Your task to perform on an android device: turn off sleep mode Image 0: 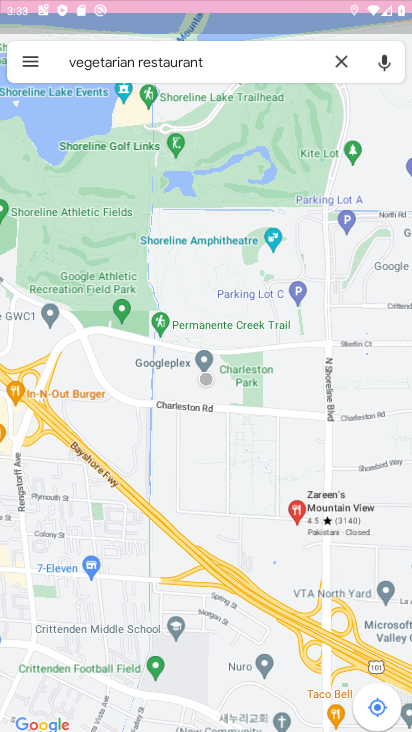
Step 0: drag from (235, 660) to (116, 67)
Your task to perform on an android device: turn off sleep mode Image 1: 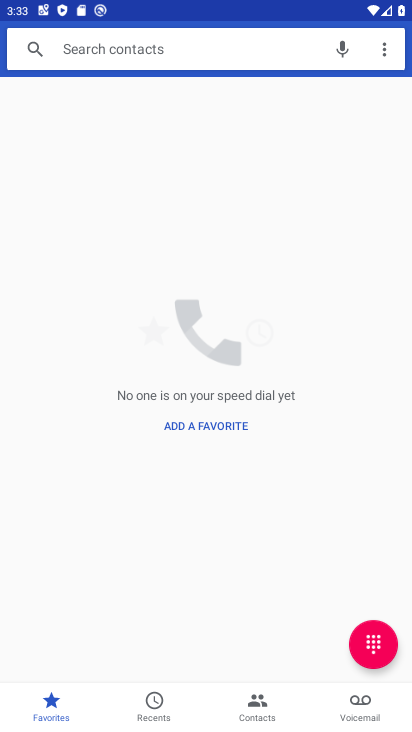
Step 1: press home button
Your task to perform on an android device: turn off sleep mode Image 2: 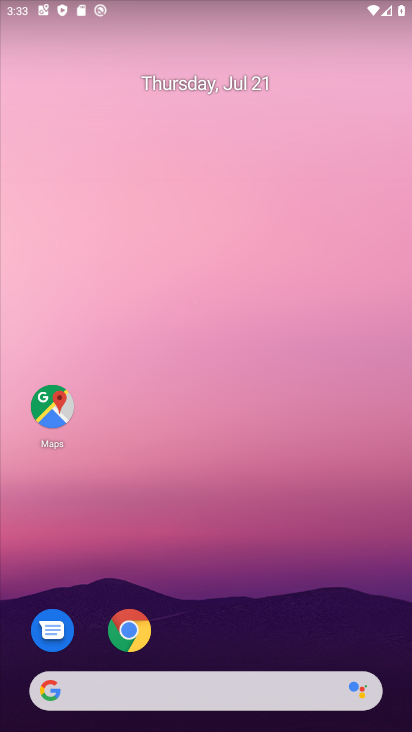
Step 2: drag from (192, 661) to (141, 25)
Your task to perform on an android device: turn off sleep mode Image 3: 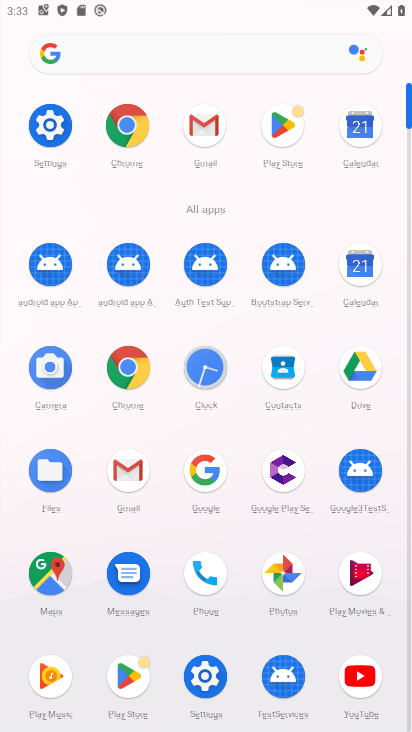
Step 3: click (58, 127)
Your task to perform on an android device: turn off sleep mode Image 4: 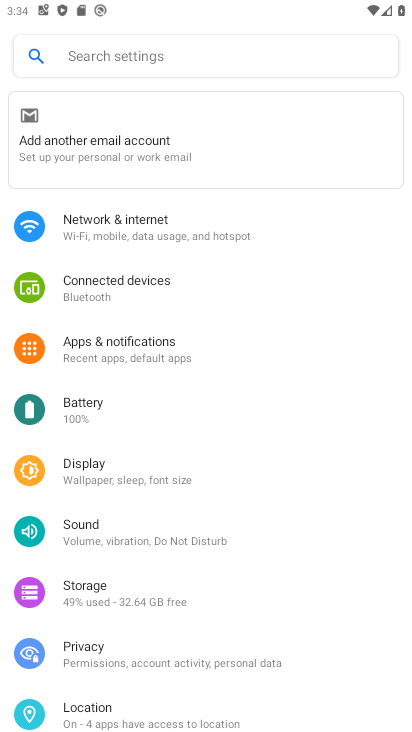
Step 4: click (106, 464)
Your task to perform on an android device: turn off sleep mode Image 5: 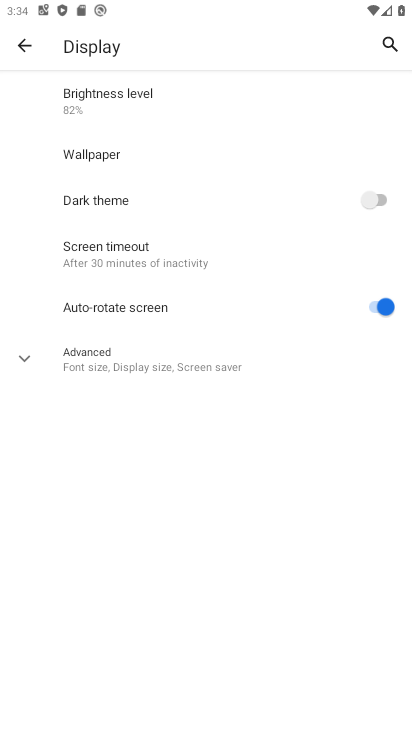
Step 5: task complete